Your task to perform on an android device: turn off airplane mode Image 0: 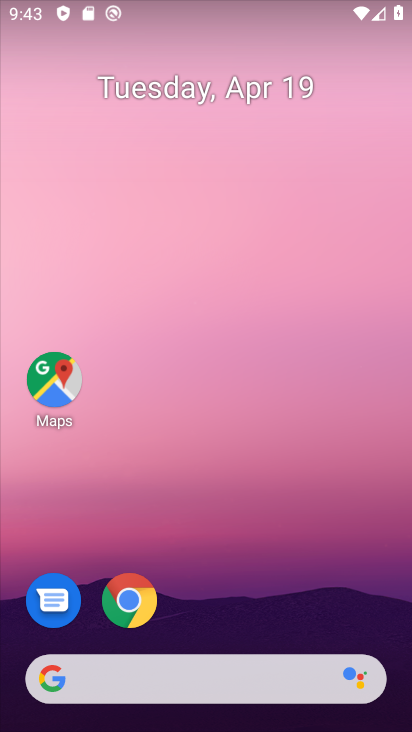
Step 0: drag from (223, 655) to (332, 111)
Your task to perform on an android device: turn off airplane mode Image 1: 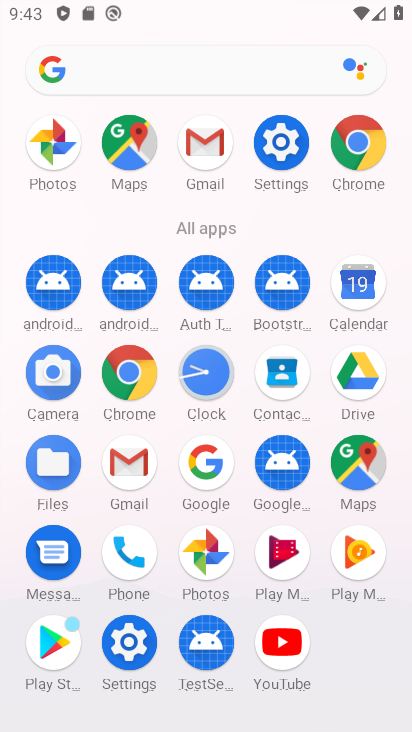
Step 1: click (286, 147)
Your task to perform on an android device: turn off airplane mode Image 2: 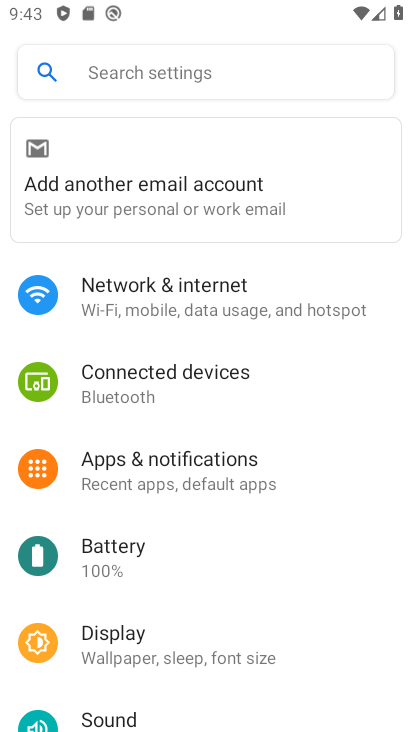
Step 2: click (224, 296)
Your task to perform on an android device: turn off airplane mode Image 3: 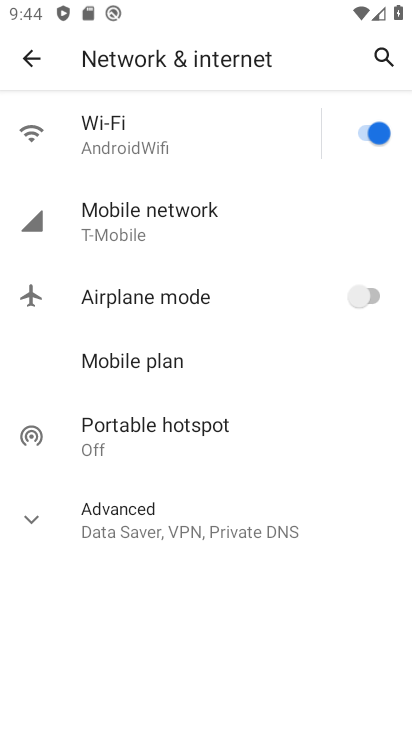
Step 3: task complete